Your task to perform on an android device: Go to ESPN.com Image 0: 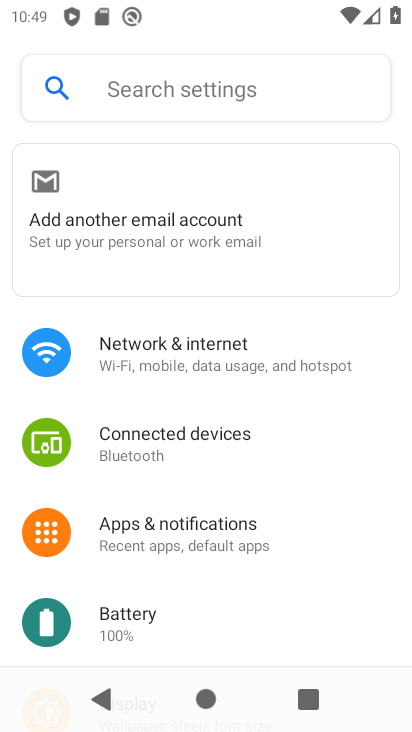
Step 0: press home button
Your task to perform on an android device: Go to ESPN.com Image 1: 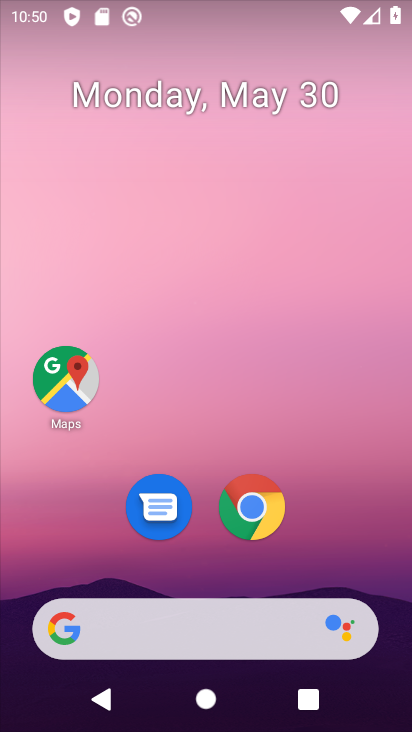
Step 1: click (262, 518)
Your task to perform on an android device: Go to ESPN.com Image 2: 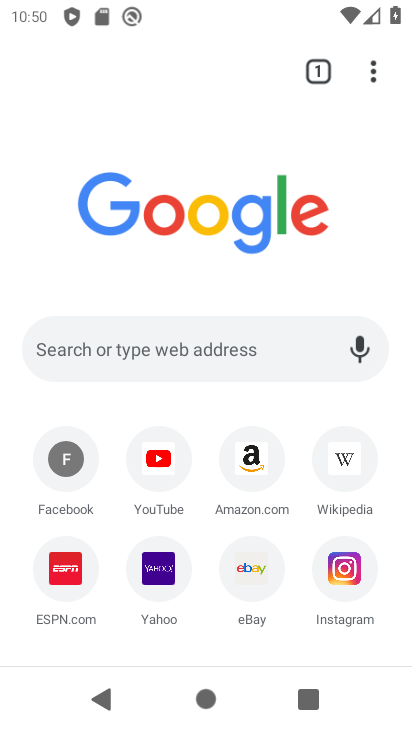
Step 2: click (63, 571)
Your task to perform on an android device: Go to ESPN.com Image 3: 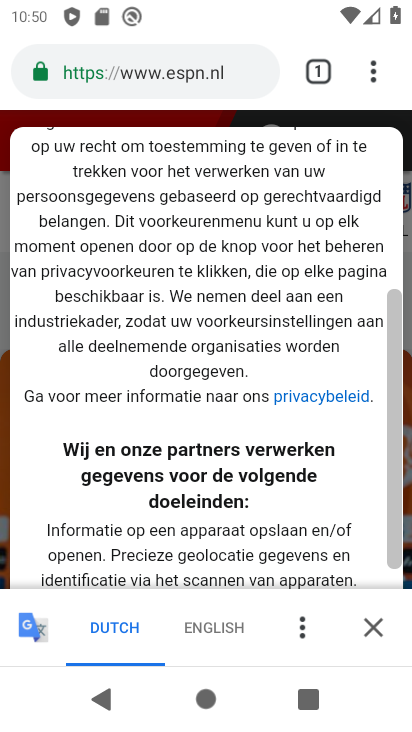
Step 3: click (188, 625)
Your task to perform on an android device: Go to ESPN.com Image 4: 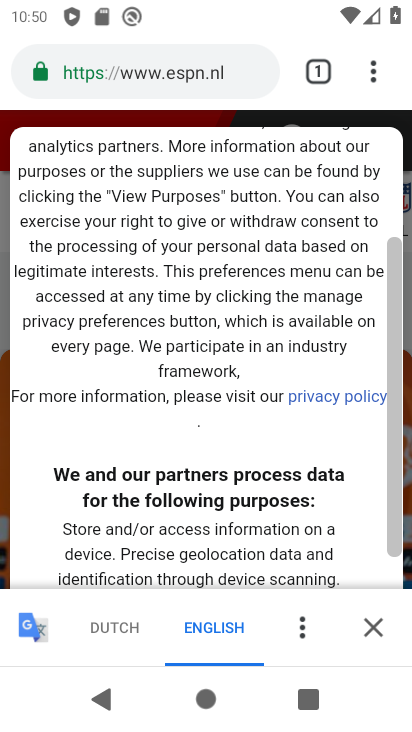
Step 4: click (360, 633)
Your task to perform on an android device: Go to ESPN.com Image 5: 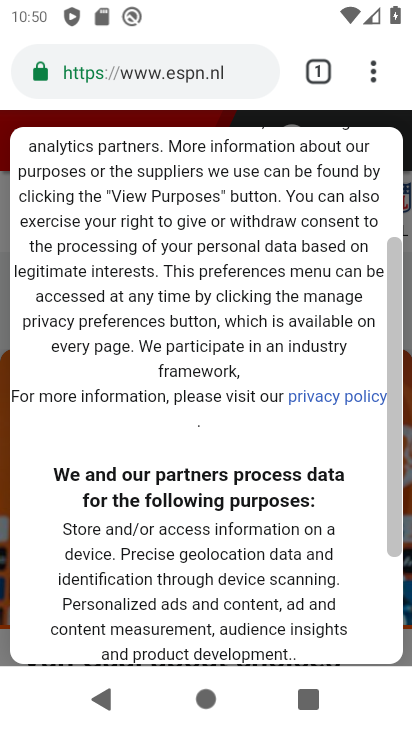
Step 5: drag from (335, 575) to (332, 291)
Your task to perform on an android device: Go to ESPN.com Image 6: 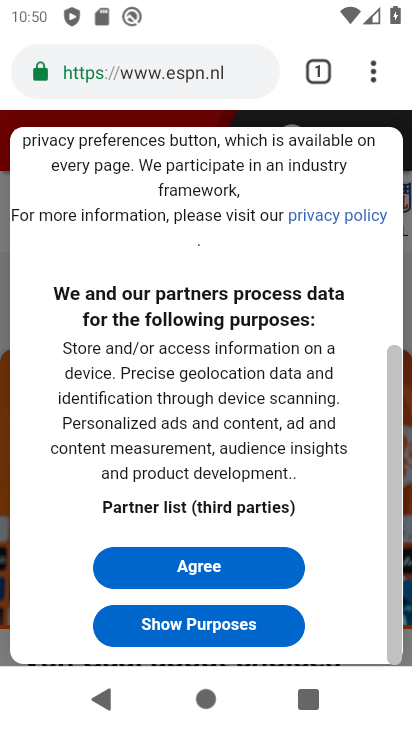
Step 6: click (268, 578)
Your task to perform on an android device: Go to ESPN.com Image 7: 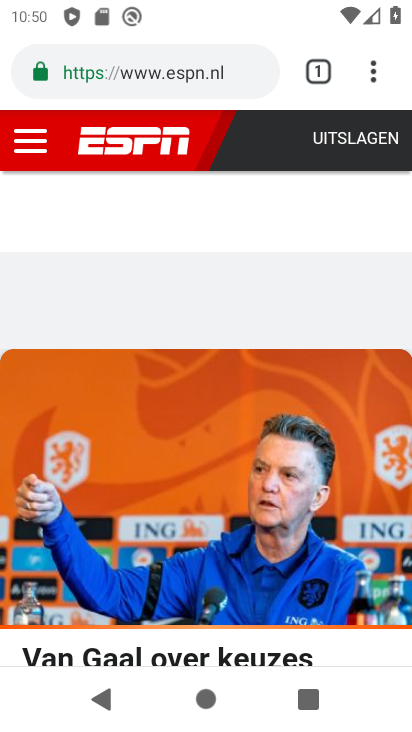
Step 7: task complete